Your task to perform on an android device: Go to calendar. Show me events next week Image 0: 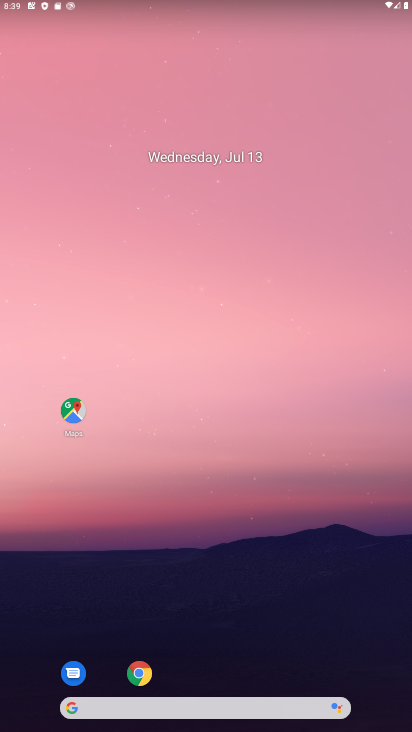
Step 0: drag from (256, 616) to (278, 63)
Your task to perform on an android device: Go to calendar. Show me events next week Image 1: 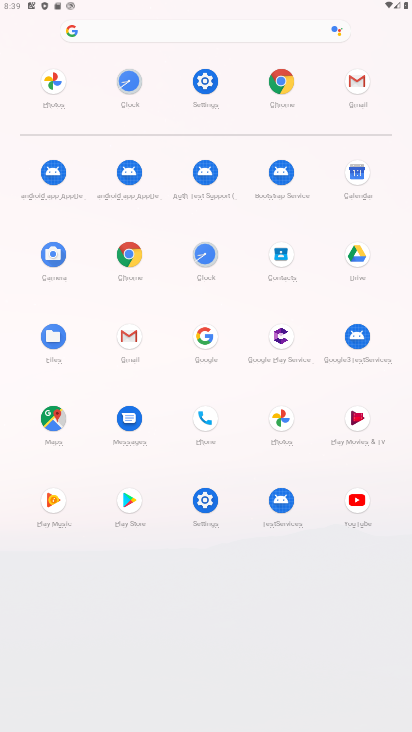
Step 1: click (362, 170)
Your task to perform on an android device: Go to calendar. Show me events next week Image 2: 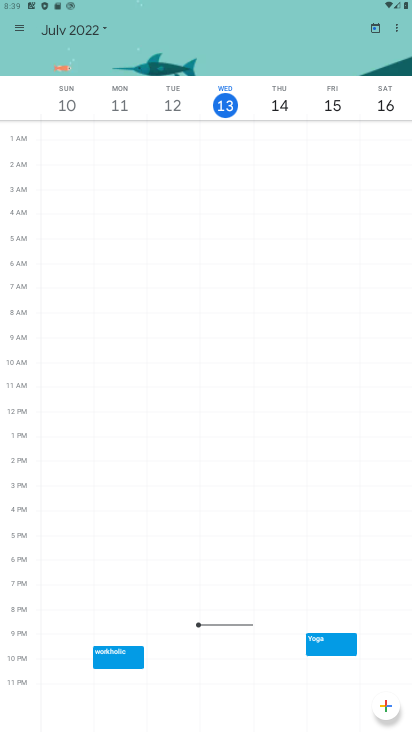
Step 2: task complete